Your task to perform on an android device: open sync settings in chrome Image 0: 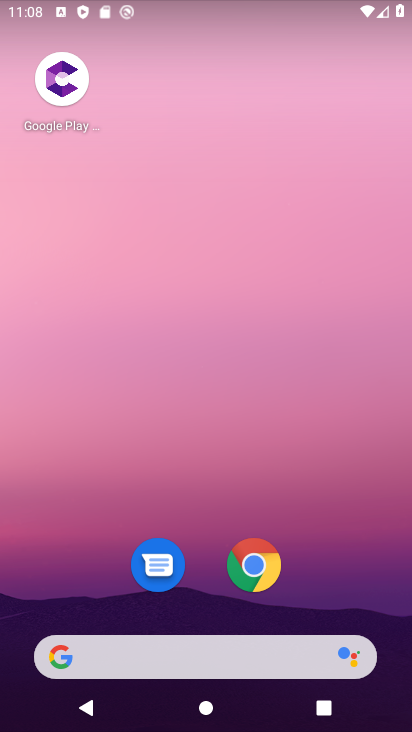
Step 0: click (250, 567)
Your task to perform on an android device: open sync settings in chrome Image 1: 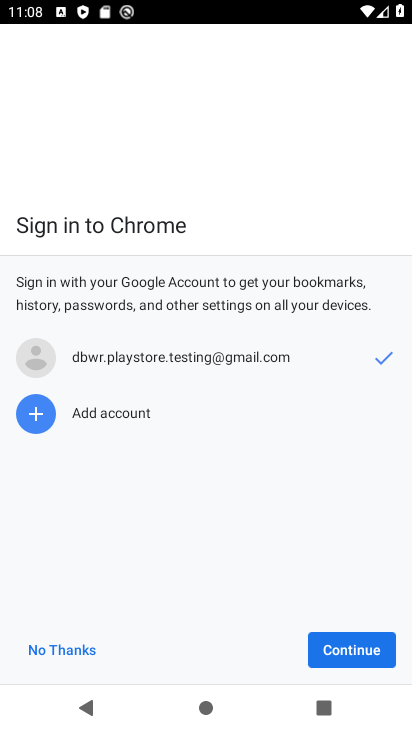
Step 1: click (60, 650)
Your task to perform on an android device: open sync settings in chrome Image 2: 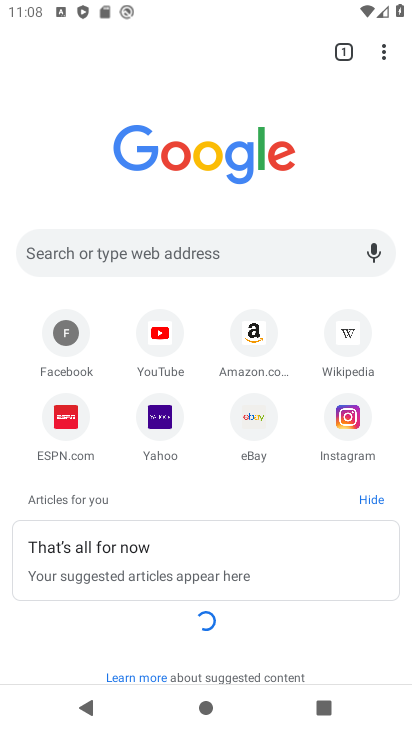
Step 2: click (390, 48)
Your task to perform on an android device: open sync settings in chrome Image 3: 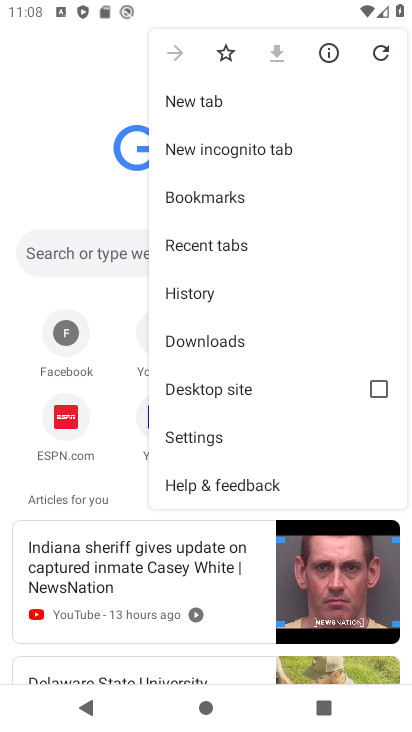
Step 3: click (196, 421)
Your task to perform on an android device: open sync settings in chrome Image 4: 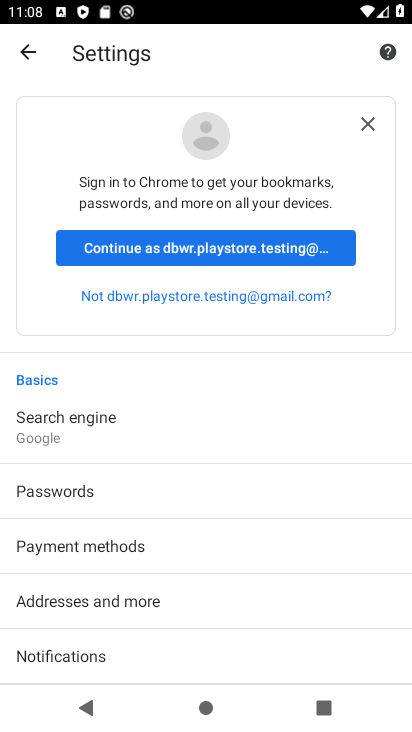
Step 4: drag from (78, 639) to (342, 55)
Your task to perform on an android device: open sync settings in chrome Image 5: 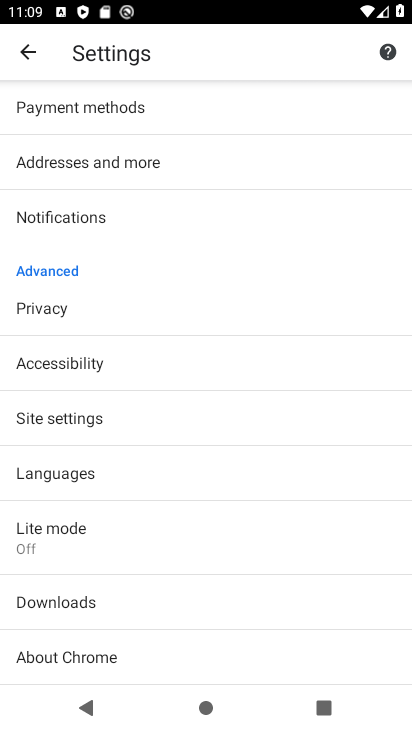
Step 5: click (54, 298)
Your task to perform on an android device: open sync settings in chrome Image 6: 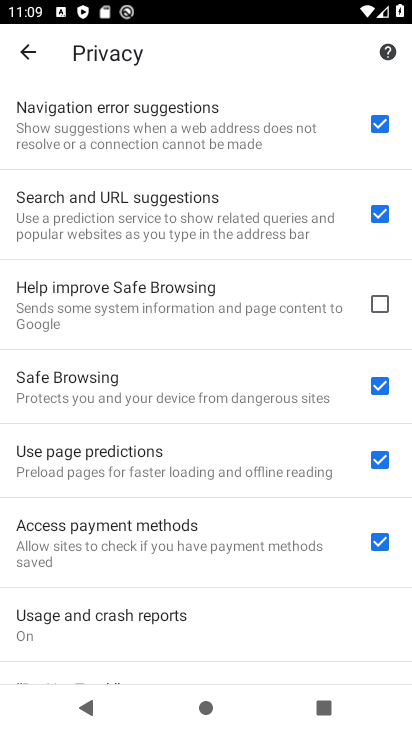
Step 6: press back button
Your task to perform on an android device: open sync settings in chrome Image 7: 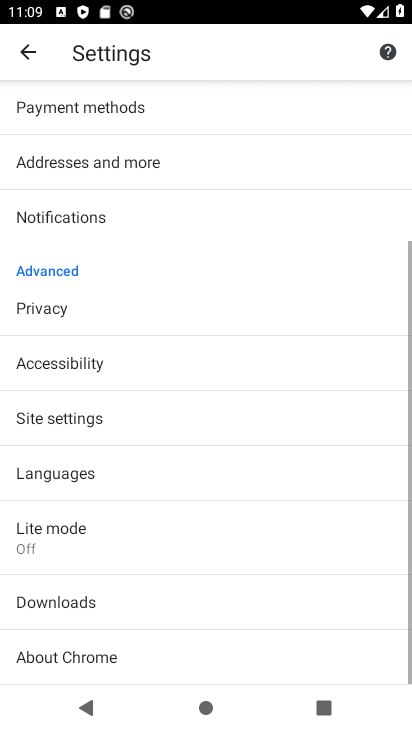
Step 7: drag from (146, 637) to (221, 243)
Your task to perform on an android device: open sync settings in chrome Image 8: 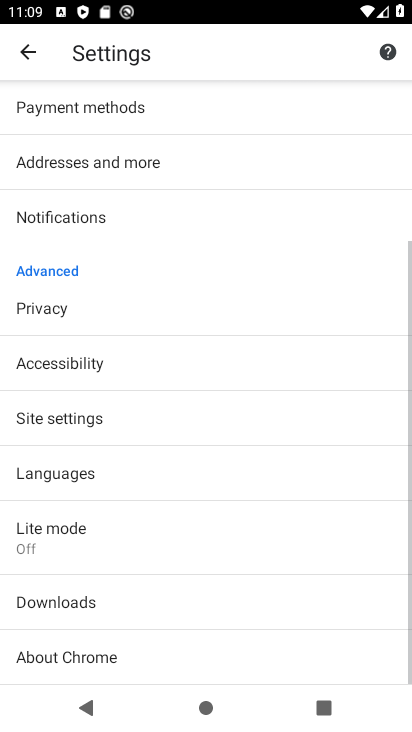
Step 8: click (152, 428)
Your task to perform on an android device: open sync settings in chrome Image 9: 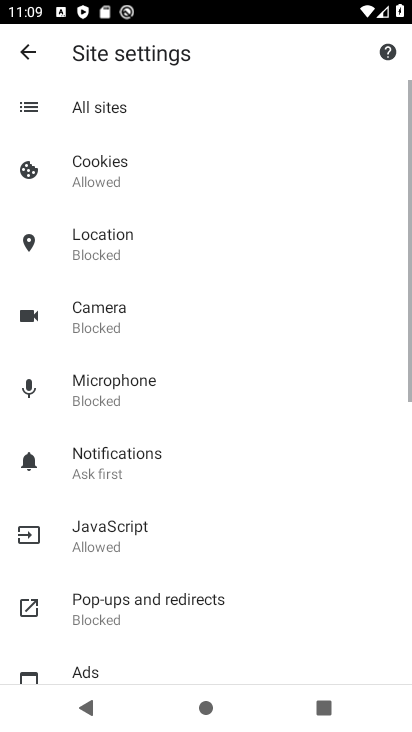
Step 9: drag from (203, 619) to (321, 107)
Your task to perform on an android device: open sync settings in chrome Image 10: 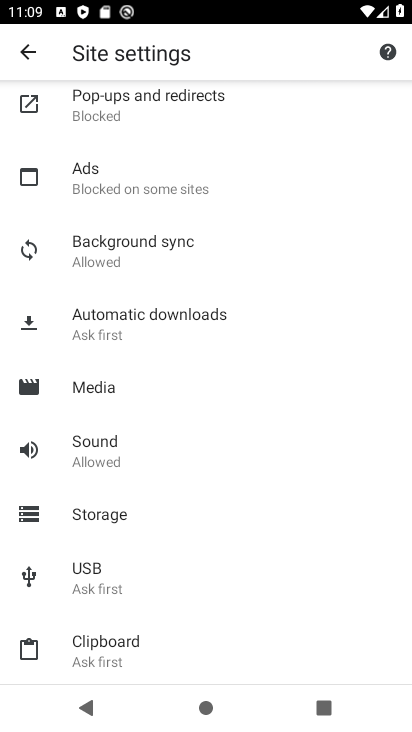
Step 10: click (143, 236)
Your task to perform on an android device: open sync settings in chrome Image 11: 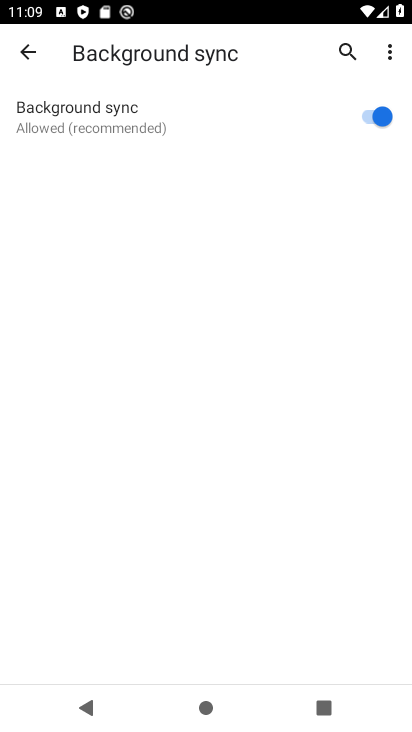
Step 11: task complete